Your task to perform on an android device: see tabs open on other devices in the chrome app Image 0: 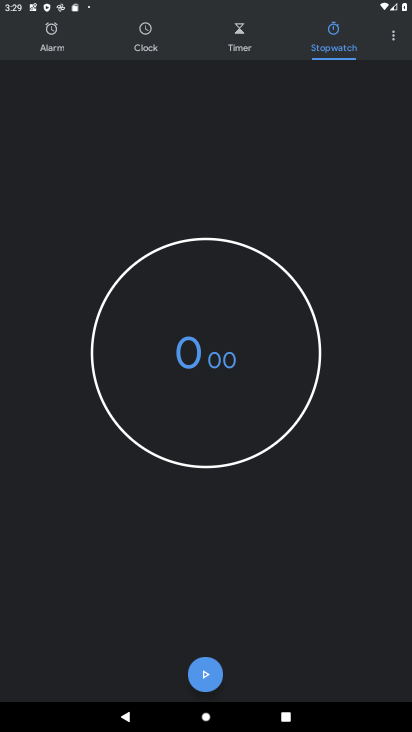
Step 0: press home button
Your task to perform on an android device: see tabs open on other devices in the chrome app Image 1: 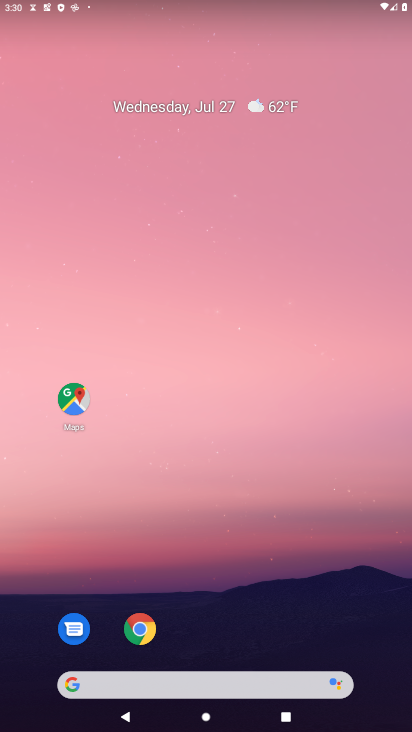
Step 1: click (138, 630)
Your task to perform on an android device: see tabs open on other devices in the chrome app Image 2: 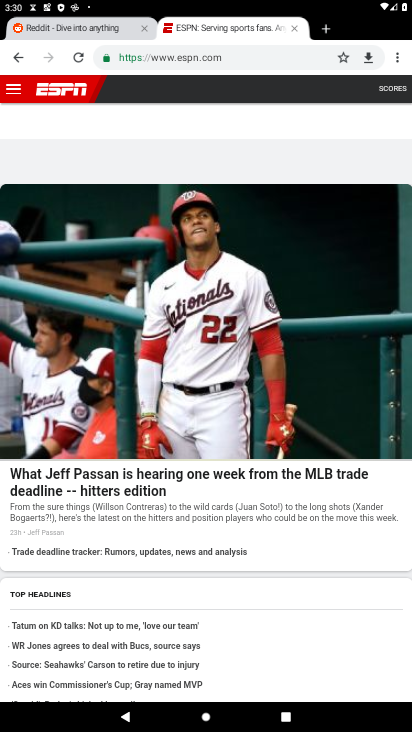
Step 2: click (397, 57)
Your task to perform on an android device: see tabs open on other devices in the chrome app Image 3: 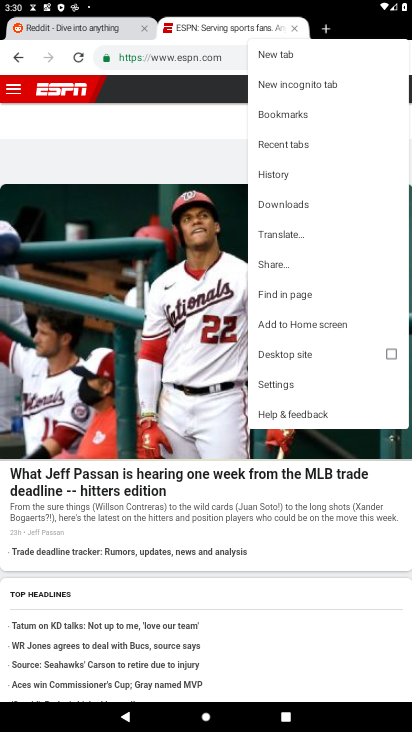
Step 3: click (296, 146)
Your task to perform on an android device: see tabs open on other devices in the chrome app Image 4: 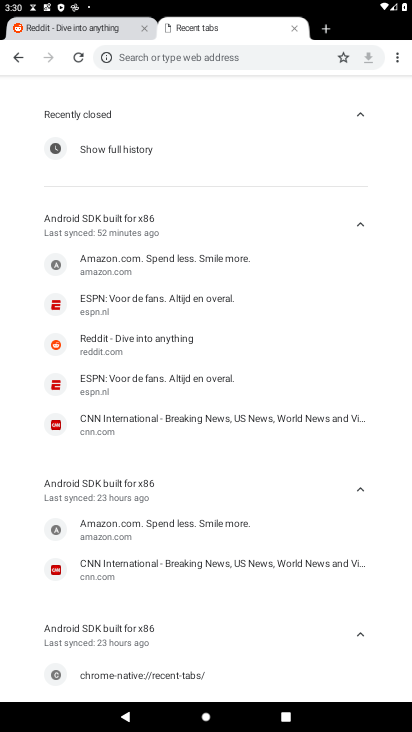
Step 4: task complete